Your task to perform on an android device: Go to CNN.com Image 0: 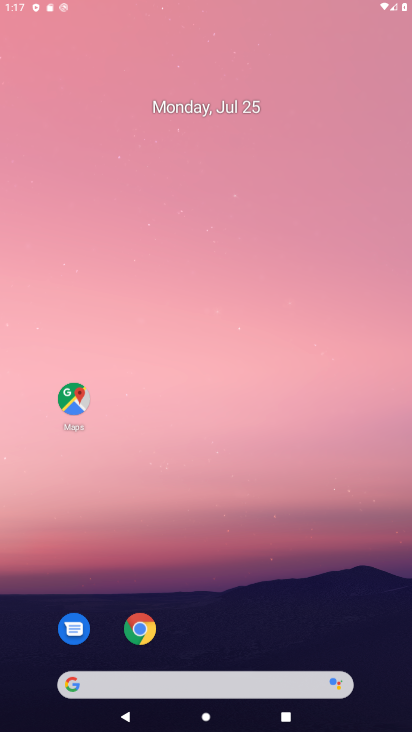
Step 0: click (304, 170)
Your task to perform on an android device: Go to CNN.com Image 1: 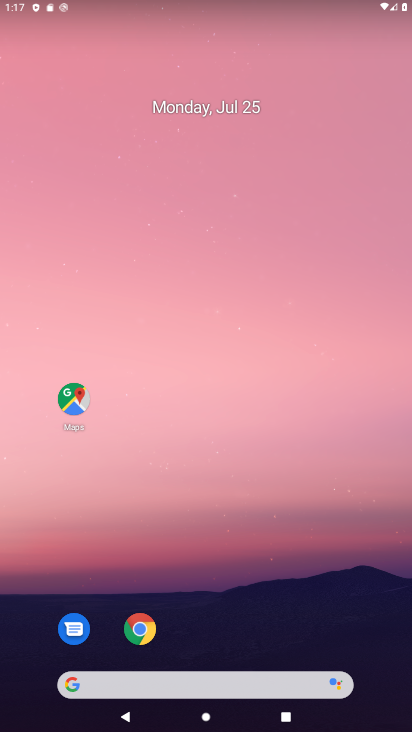
Step 1: drag from (257, 342) to (304, 169)
Your task to perform on an android device: Go to CNN.com Image 2: 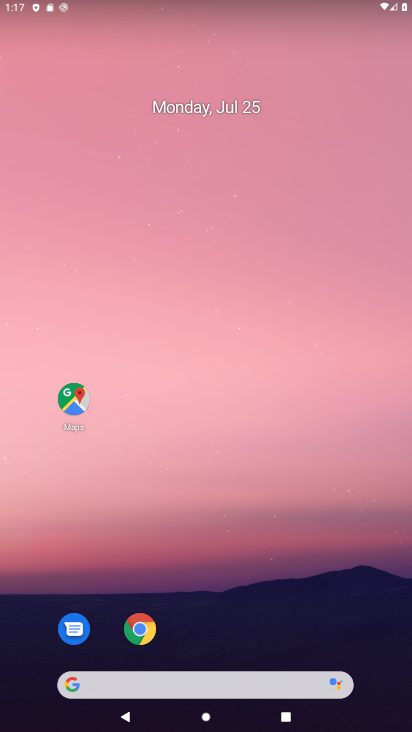
Step 2: drag from (197, 636) to (255, 131)
Your task to perform on an android device: Go to CNN.com Image 3: 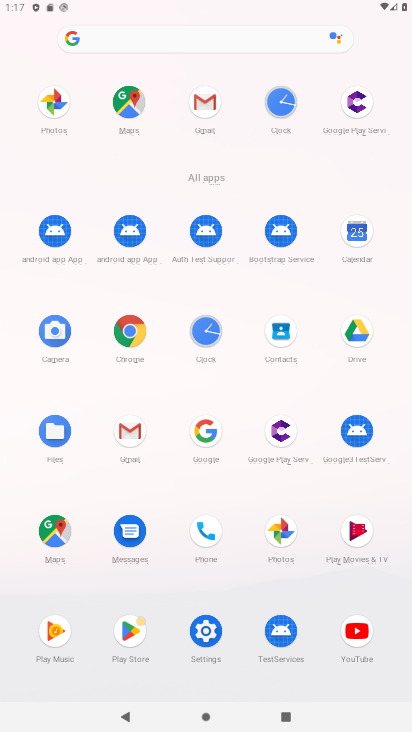
Step 3: click (134, 39)
Your task to perform on an android device: Go to CNN.com Image 4: 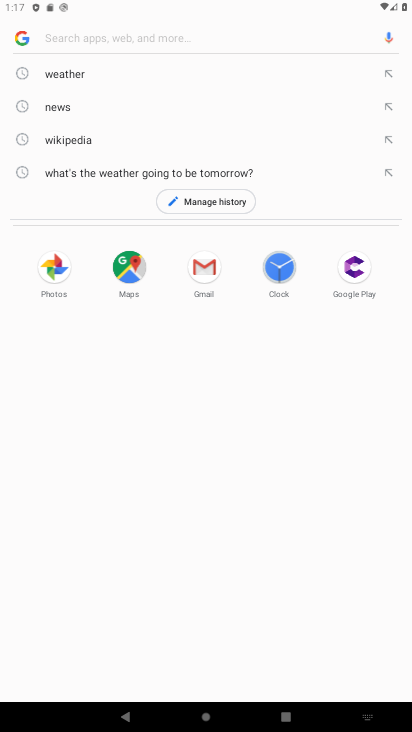
Step 4: type "CNN.com"
Your task to perform on an android device: Go to CNN.com Image 5: 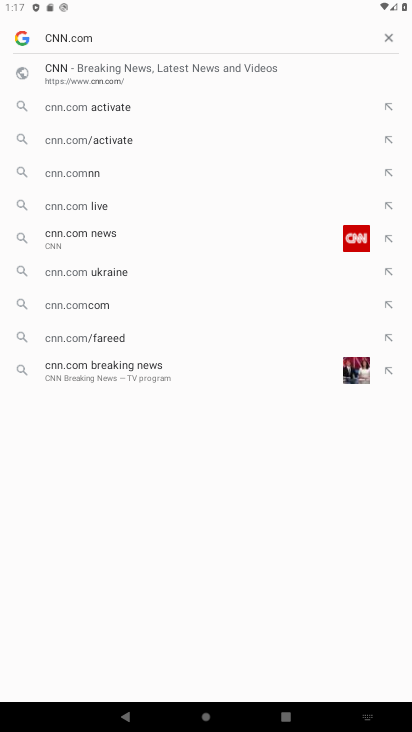
Step 5: click (70, 72)
Your task to perform on an android device: Go to CNN.com Image 6: 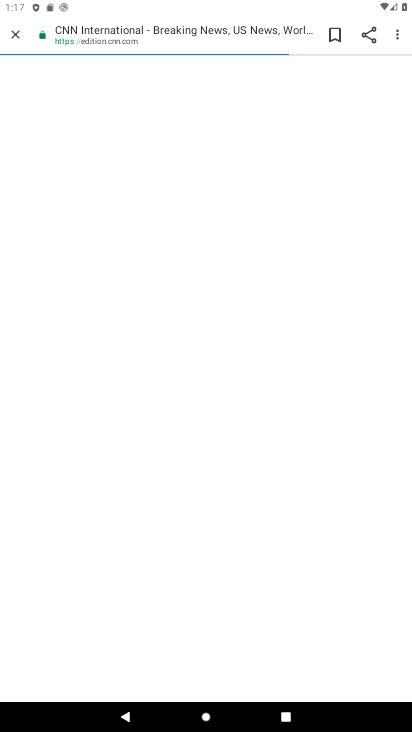
Step 6: task complete